Your task to perform on an android device: check storage Image 0: 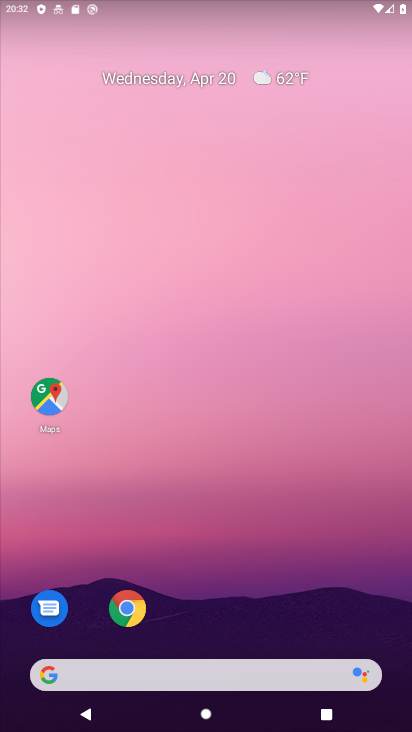
Step 0: drag from (363, 607) to (269, 6)
Your task to perform on an android device: check storage Image 1: 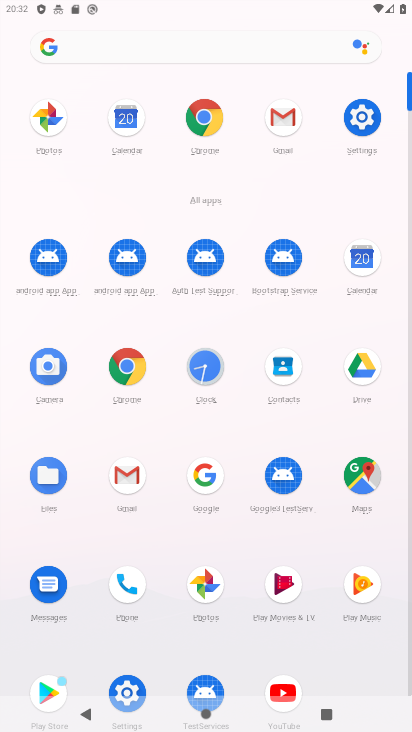
Step 1: click (355, 133)
Your task to perform on an android device: check storage Image 2: 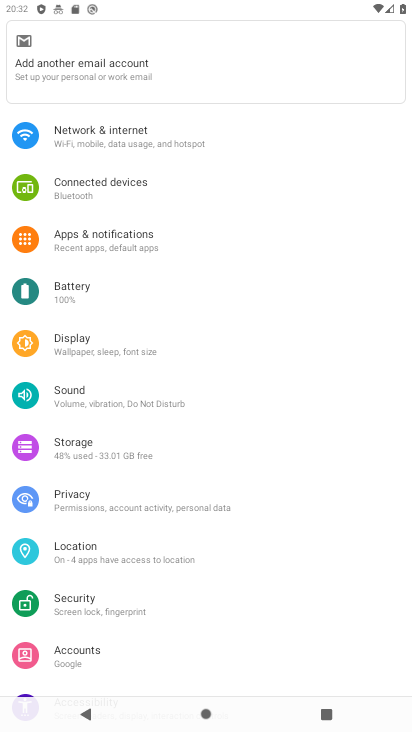
Step 2: click (72, 458)
Your task to perform on an android device: check storage Image 3: 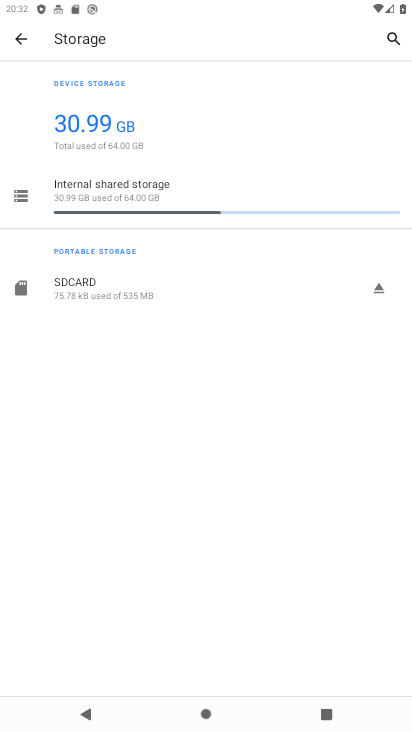
Step 3: task complete